Your task to perform on an android device: turn vacation reply on in the gmail app Image 0: 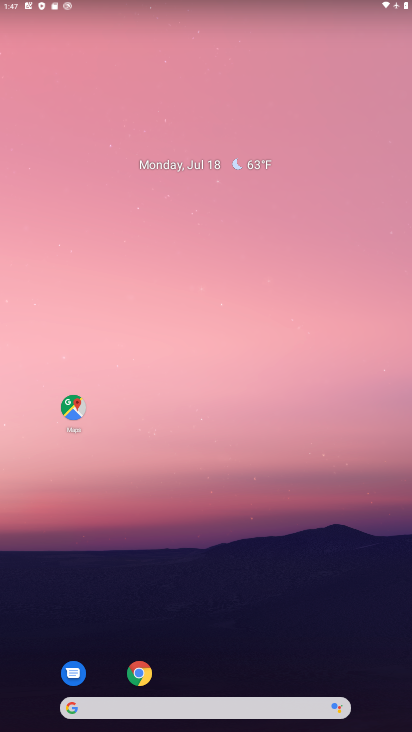
Step 0: drag from (278, 613) to (250, 130)
Your task to perform on an android device: turn vacation reply on in the gmail app Image 1: 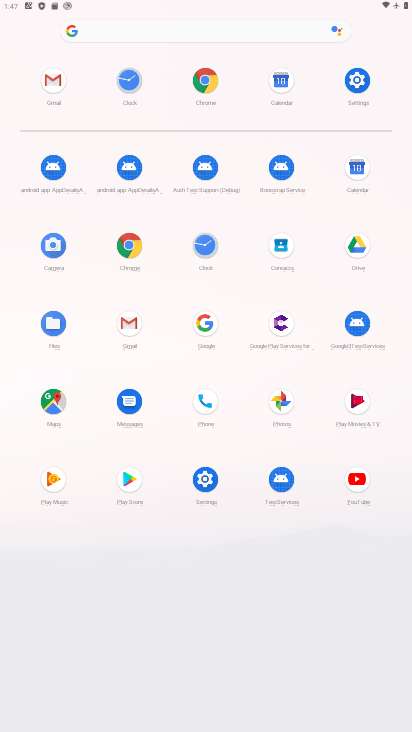
Step 1: click (47, 79)
Your task to perform on an android device: turn vacation reply on in the gmail app Image 2: 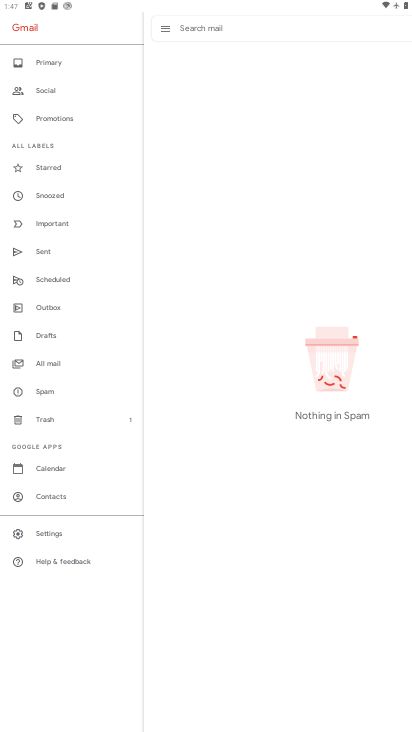
Step 2: click (65, 533)
Your task to perform on an android device: turn vacation reply on in the gmail app Image 3: 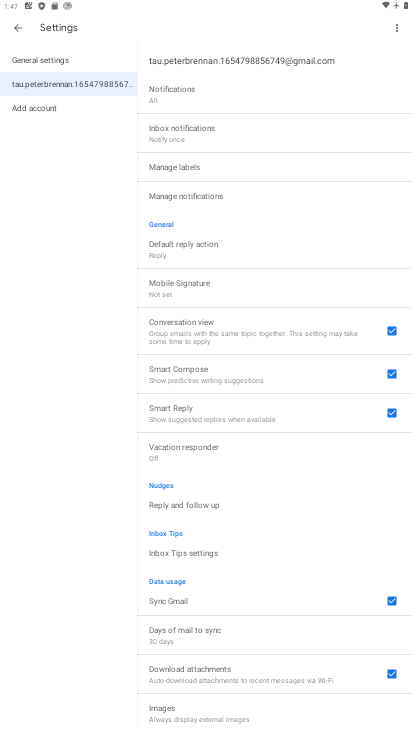
Step 3: click (213, 447)
Your task to perform on an android device: turn vacation reply on in the gmail app Image 4: 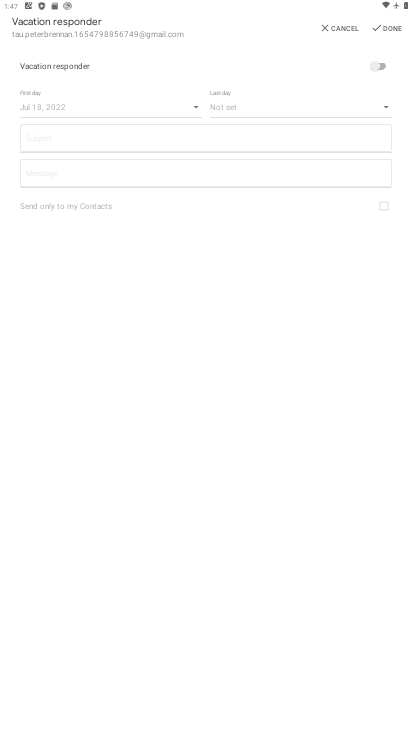
Step 4: click (372, 67)
Your task to perform on an android device: turn vacation reply on in the gmail app Image 5: 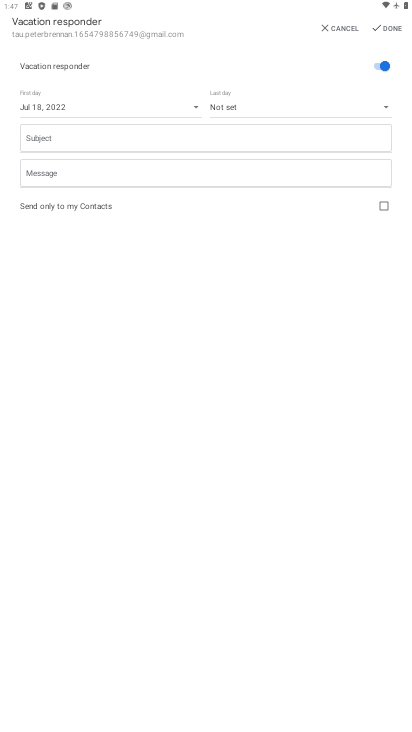
Step 5: click (393, 25)
Your task to perform on an android device: turn vacation reply on in the gmail app Image 6: 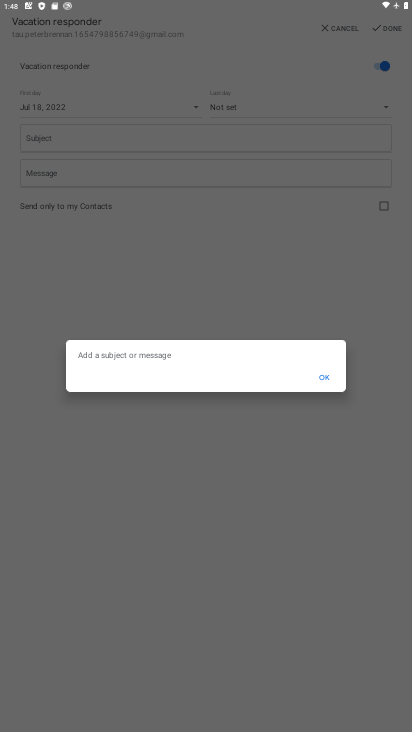
Step 6: click (329, 379)
Your task to perform on an android device: turn vacation reply on in the gmail app Image 7: 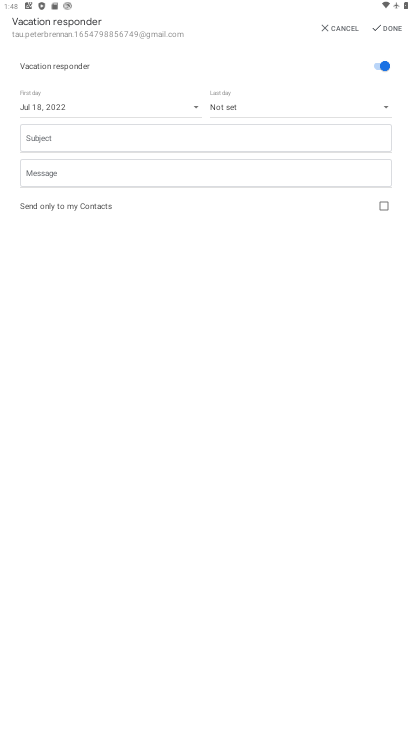
Step 7: task complete